Your task to perform on an android device: Show me popular games on the Play Store Image 0: 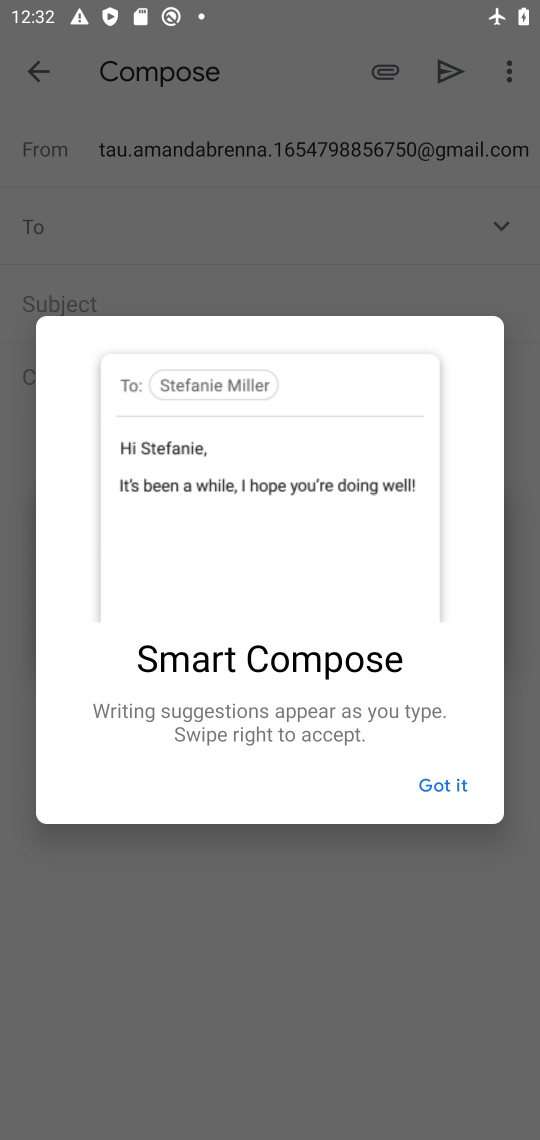
Step 0: press home button
Your task to perform on an android device: Show me popular games on the Play Store Image 1: 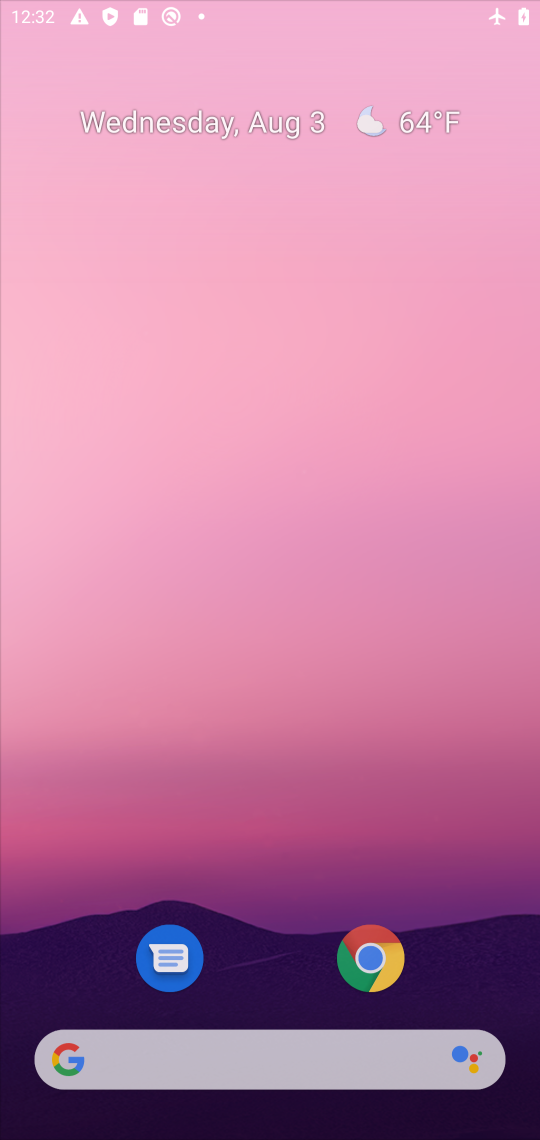
Step 1: press home button
Your task to perform on an android device: Show me popular games on the Play Store Image 2: 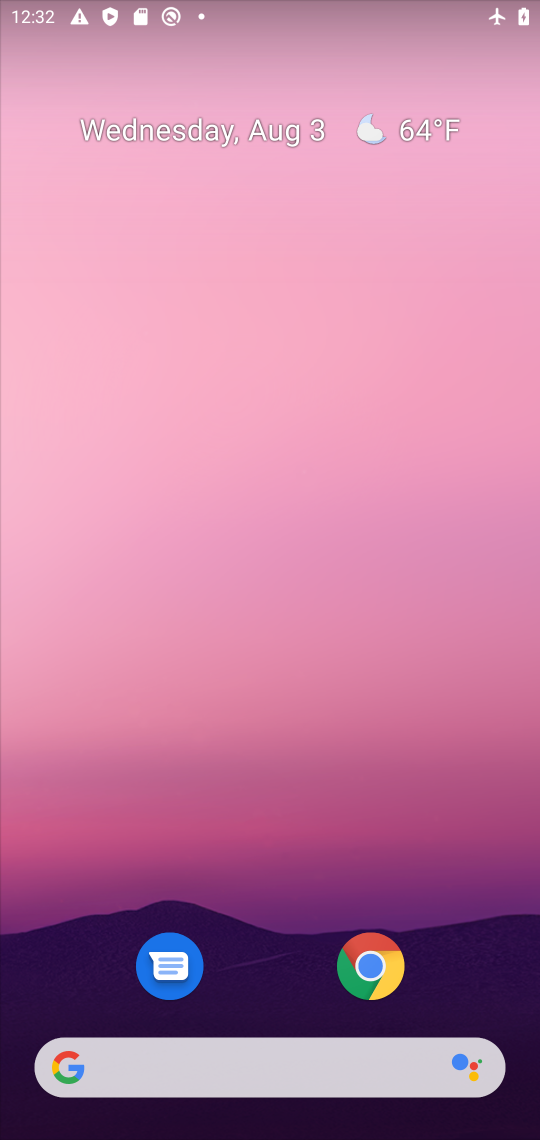
Step 2: drag from (276, 931) to (242, 407)
Your task to perform on an android device: Show me popular games on the Play Store Image 3: 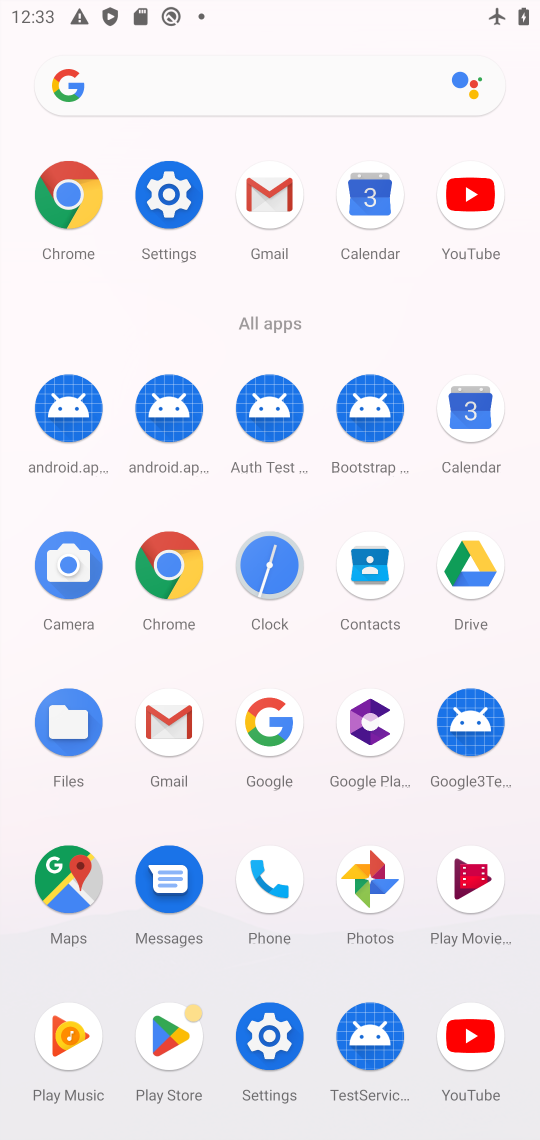
Step 3: click (190, 1024)
Your task to perform on an android device: Show me popular games on the Play Store Image 4: 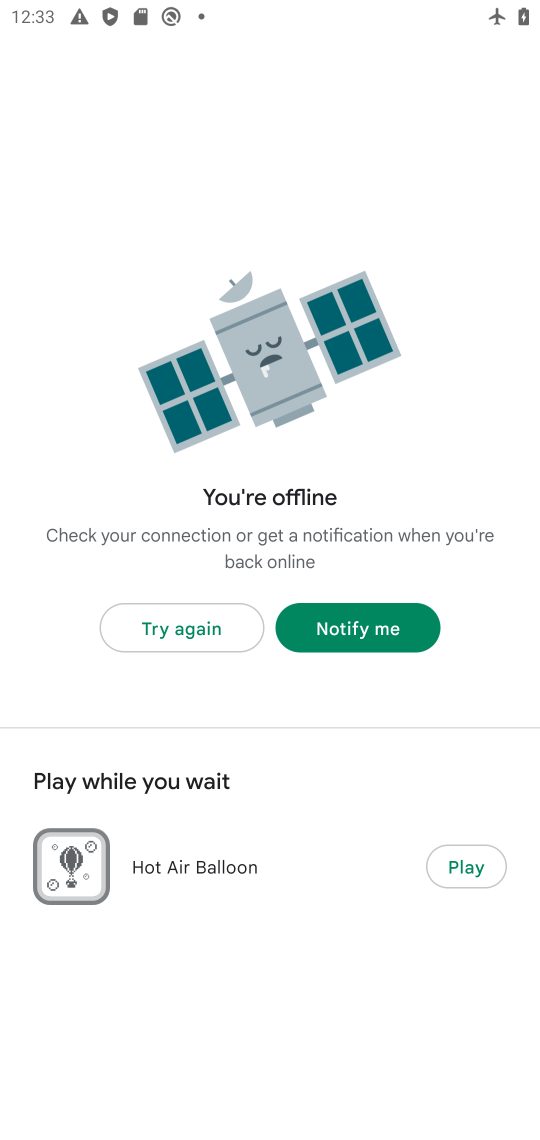
Step 4: task complete